Your task to perform on an android device: Search for sushi restaurants on Maps Image 0: 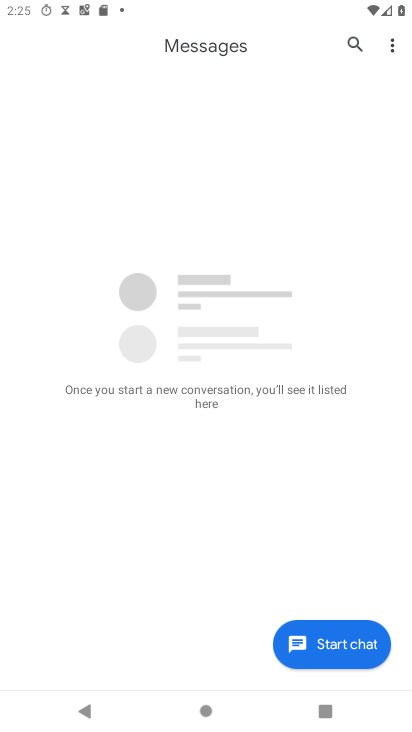
Step 0: press home button
Your task to perform on an android device: Search for sushi restaurants on Maps Image 1: 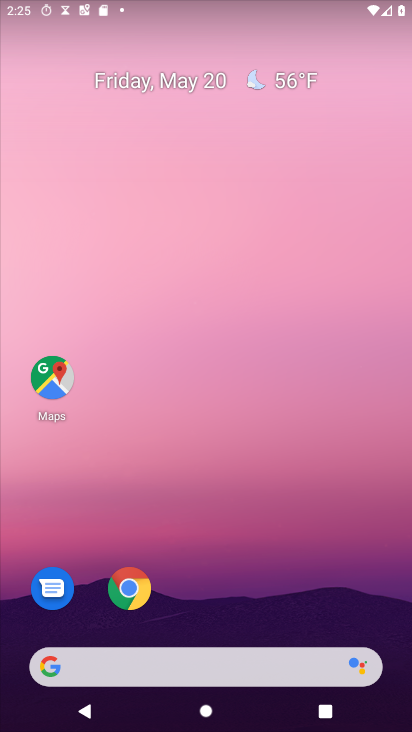
Step 1: drag from (8, 598) to (151, 280)
Your task to perform on an android device: Search for sushi restaurants on Maps Image 2: 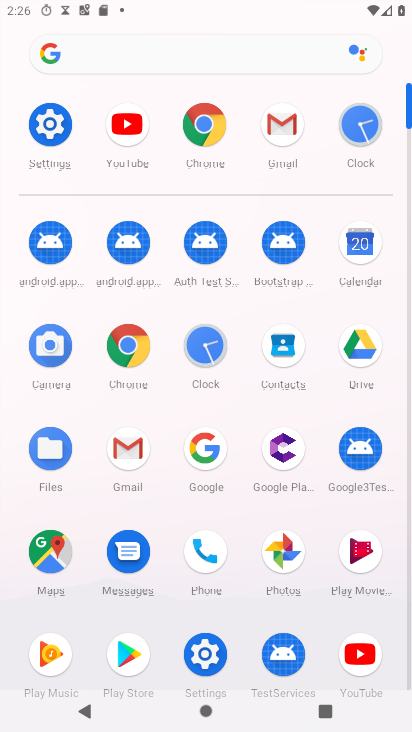
Step 2: click (56, 560)
Your task to perform on an android device: Search for sushi restaurants on Maps Image 3: 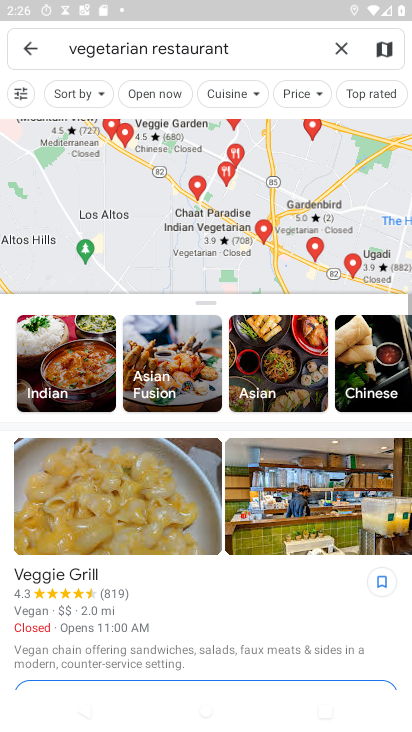
Step 3: click (345, 53)
Your task to perform on an android device: Search for sushi restaurants on Maps Image 4: 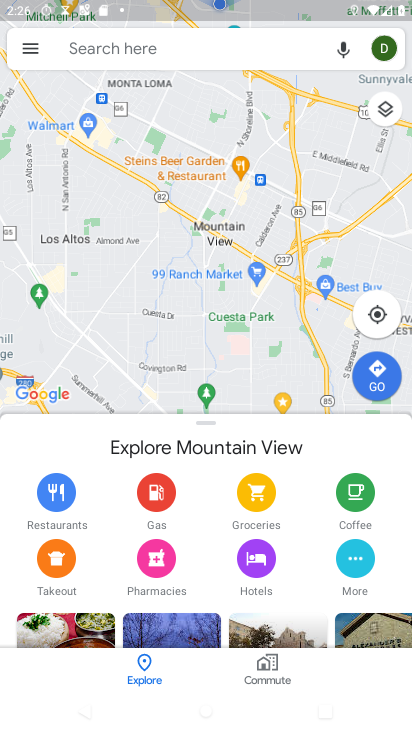
Step 4: click (227, 50)
Your task to perform on an android device: Search for sushi restaurants on Maps Image 5: 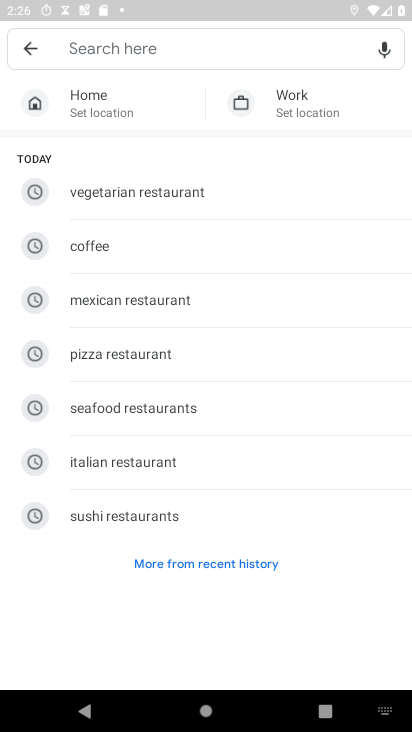
Step 5: click (132, 522)
Your task to perform on an android device: Search for sushi restaurants on Maps Image 6: 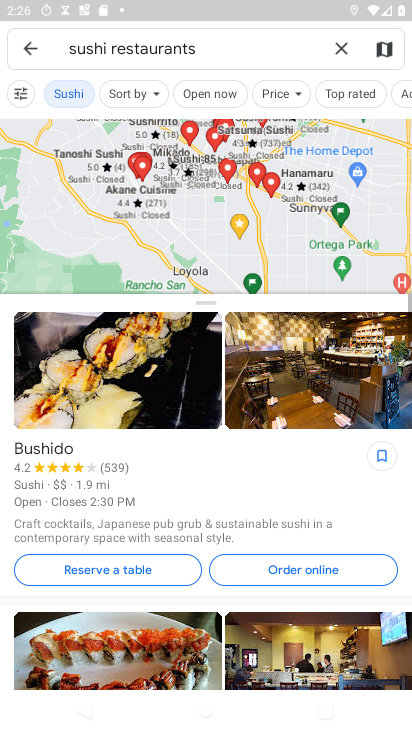
Step 6: task complete